Your task to perform on an android device: open the mobile data screen to see how much data has been used Image 0: 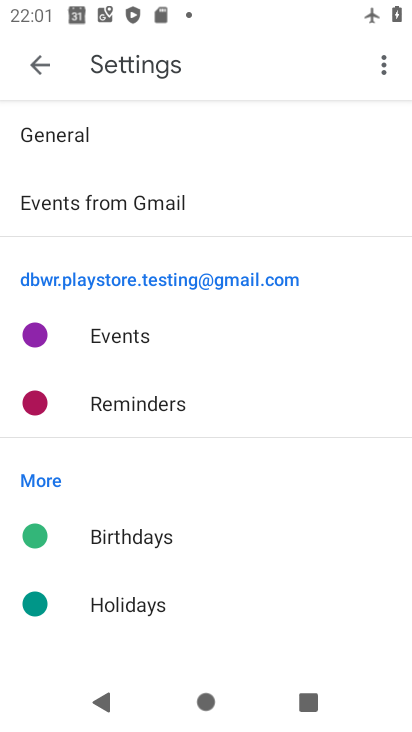
Step 0: press home button
Your task to perform on an android device: open the mobile data screen to see how much data has been used Image 1: 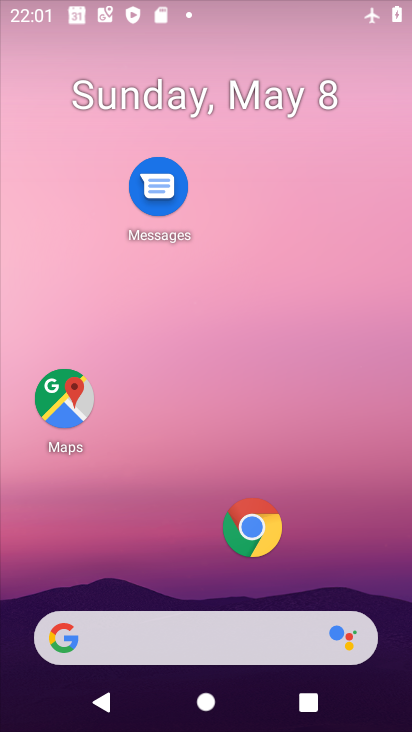
Step 1: drag from (191, 370) to (286, 10)
Your task to perform on an android device: open the mobile data screen to see how much data has been used Image 2: 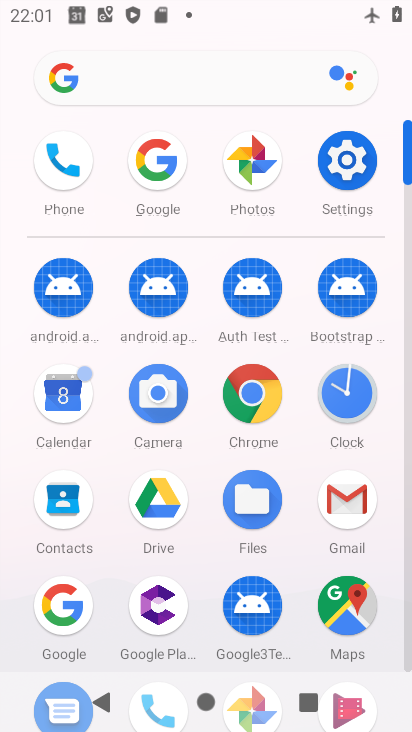
Step 2: click (350, 150)
Your task to perform on an android device: open the mobile data screen to see how much data has been used Image 3: 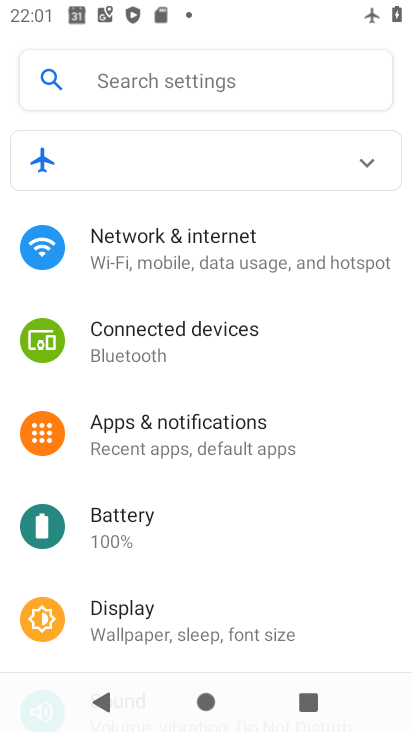
Step 3: click (205, 259)
Your task to perform on an android device: open the mobile data screen to see how much data has been used Image 4: 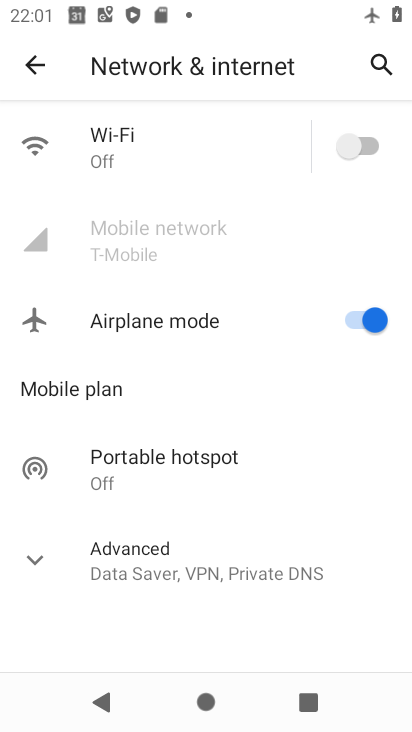
Step 4: task complete